Your task to perform on an android device: open a bookmark in the chrome app Image 0: 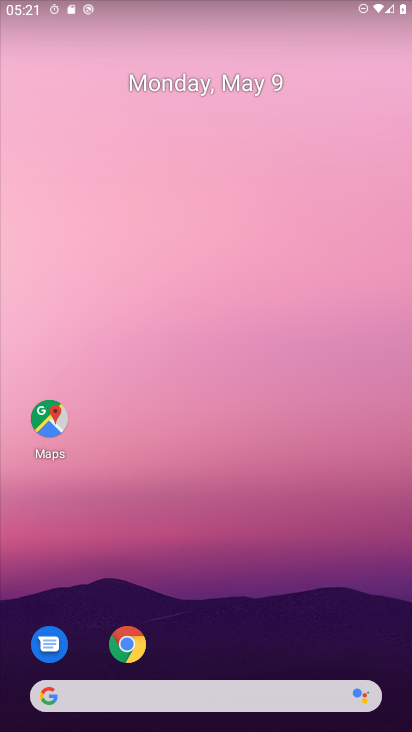
Step 0: click (127, 642)
Your task to perform on an android device: open a bookmark in the chrome app Image 1: 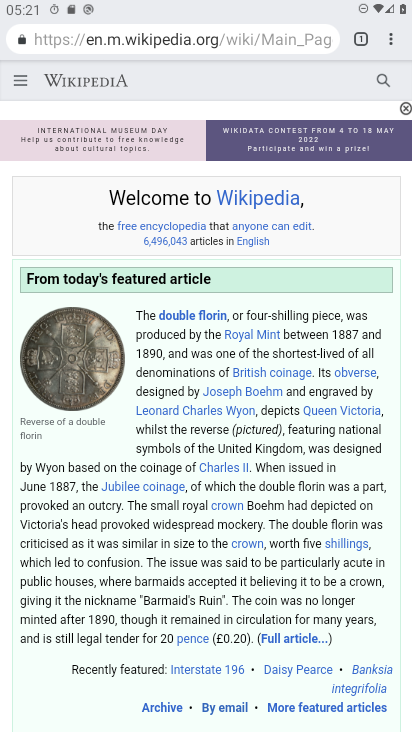
Step 1: click (390, 39)
Your task to perform on an android device: open a bookmark in the chrome app Image 2: 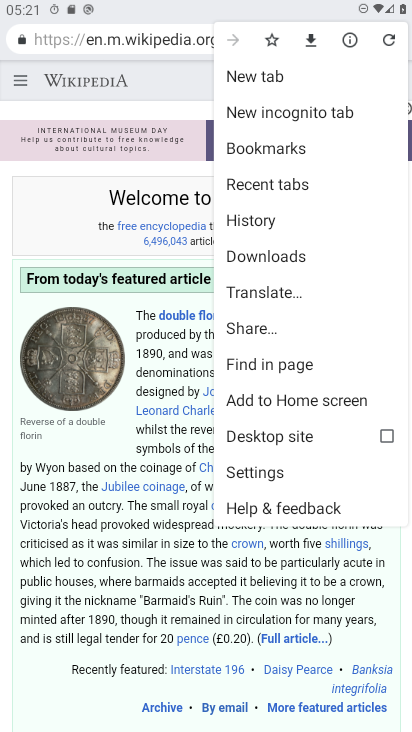
Step 2: click (277, 144)
Your task to perform on an android device: open a bookmark in the chrome app Image 3: 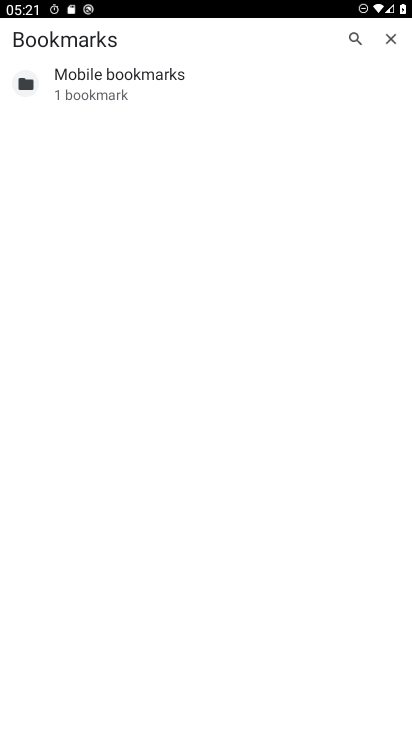
Step 3: task complete